Your task to perform on an android device: check android version Image 0: 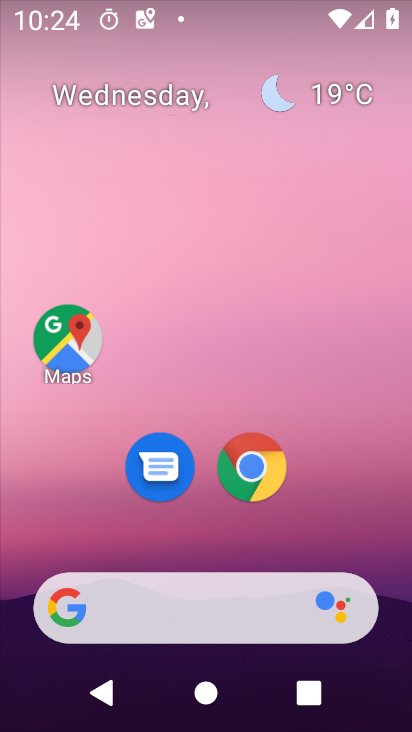
Step 0: drag from (356, 499) to (218, 0)
Your task to perform on an android device: check android version Image 1: 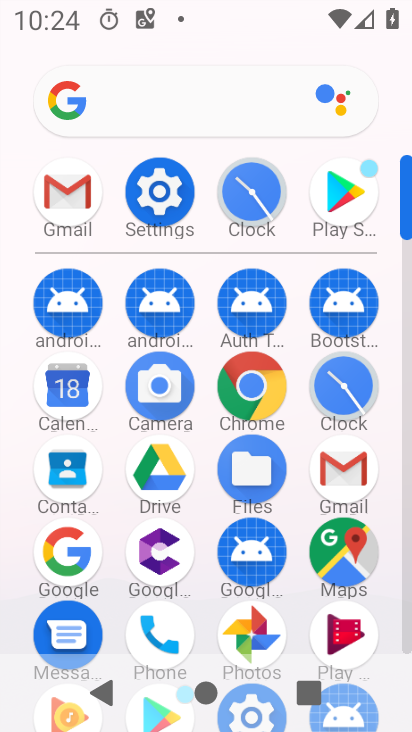
Step 1: click (152, 216)
Your task to perform on an android device: check android version Image 2: 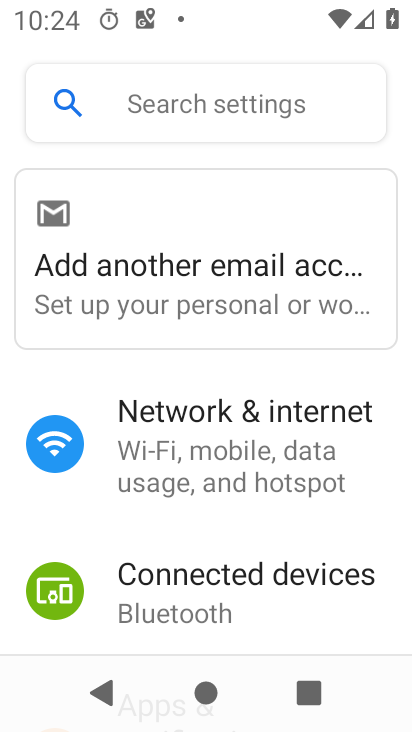
Step 2: drag from (259, 532) to (198, 97)
Your task to perform on an android device: check android version Image 3: 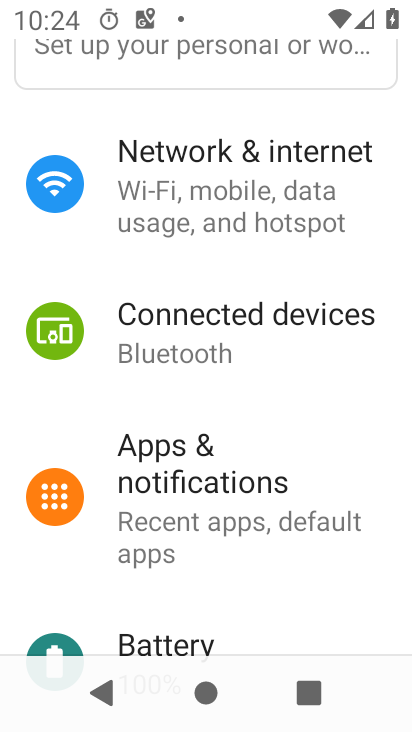
Step 3: drag from (204, 537) to (223, 41)
Your task to perform on an android device: check android version Image 4: 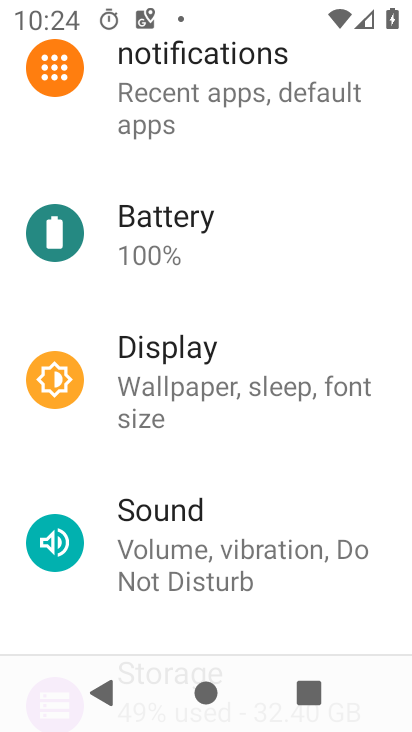
Step 4: drag from (206, 532) to (206, 87)
Your task to perform on an android device: check android version Image 5: 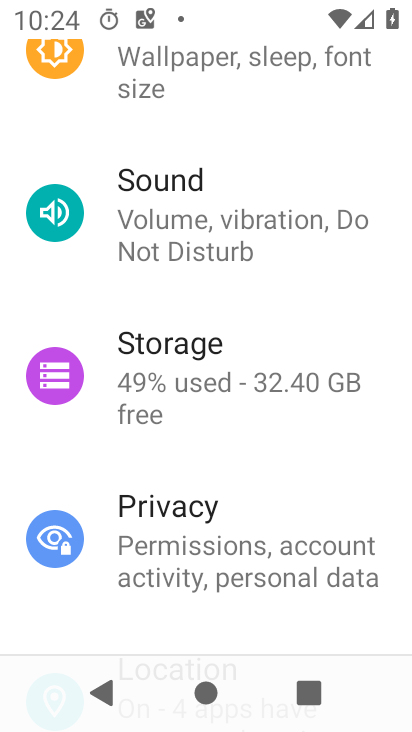
Step 5: drag from (227, 480) to (221, 103)
Your task to perform on an android device: check android version Image 6: 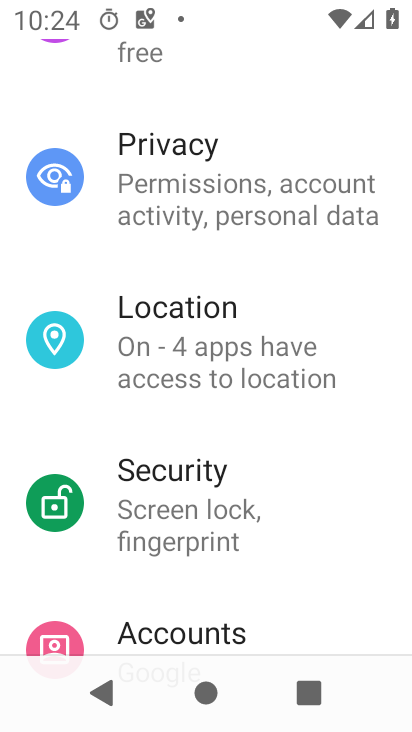
Step 6: drag from (214, 541) to (194, 91)
Your task to perform on an android device: check android version Image 7: 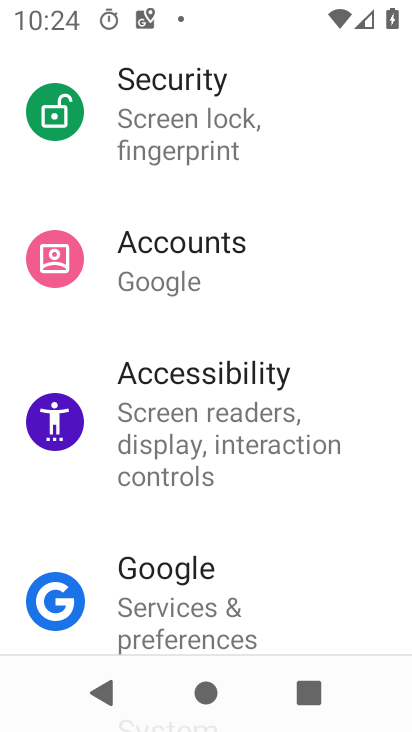
Step 7: drag from (236, 566) to (183, 48)
Your task to perform on an android device: check android version Image 8: 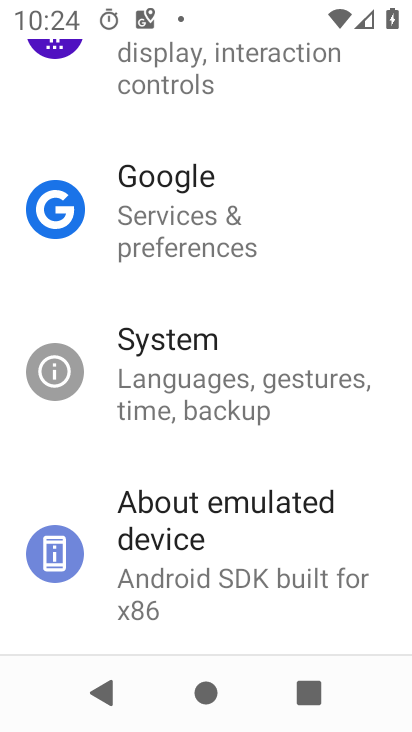
Step 8: click (209, 536)
Your task to perform on an android device: check android version Image 9: 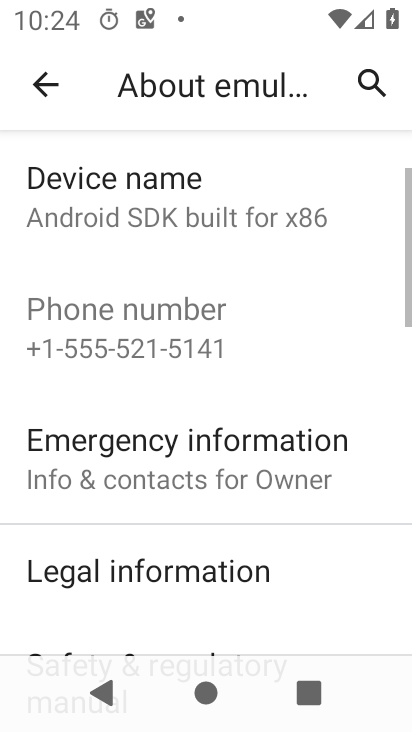
Step 9: drag from (219, 550) to (224, 151)
Your task to perform on an android device: check android version Image 10: 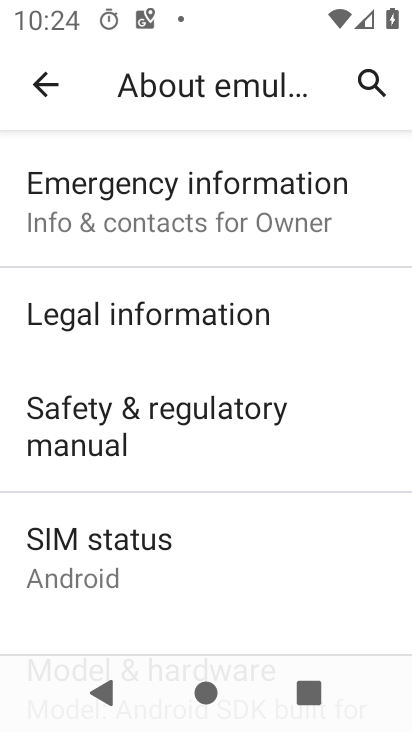
Step 10: drag from (242, 385) to (212, 48)
Your task to perform on an android device: check android version Image 11: 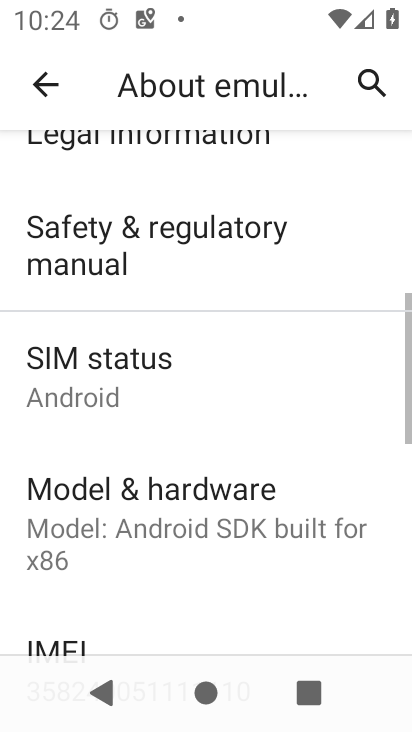
Step 11: drag from (213, 498) to (136, 164)
Your task to perform on an android device: check android version Image 12: 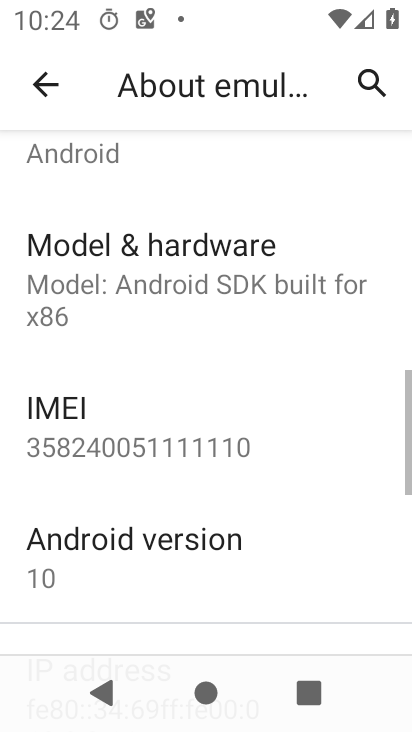
Step 12: click (188, 551)
Your task to perform on an android device: check android version Image 13: 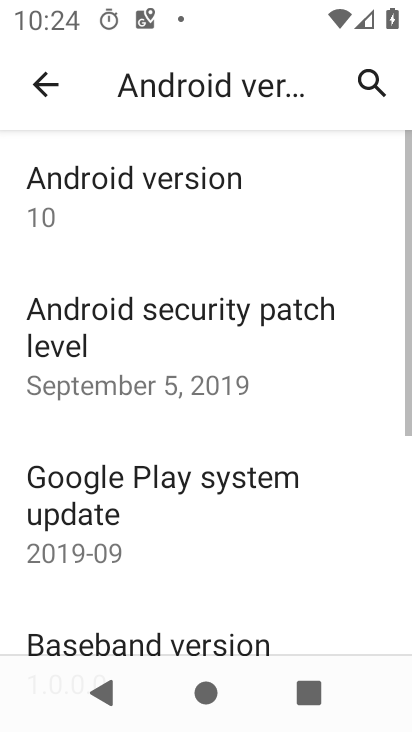
Step 13: task complete